Your task to perform on an android device: When is my next meeting? Image 0: 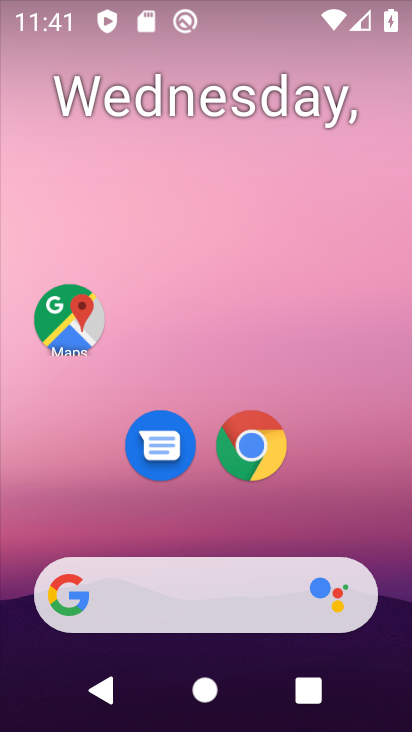
Step 0: drag from (335, 473) to (337, 74)
Your task to perform on an android device: When is my next meeting? Image 1: 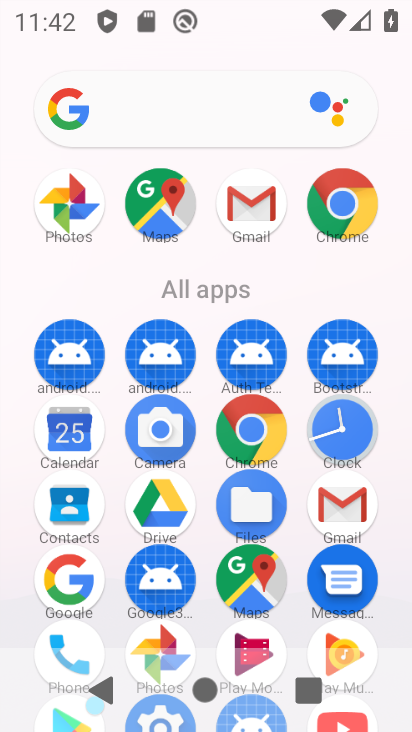
Step 1: click (60, 434)
Your task to perform on an android device: When is my next meeting? Image 2: 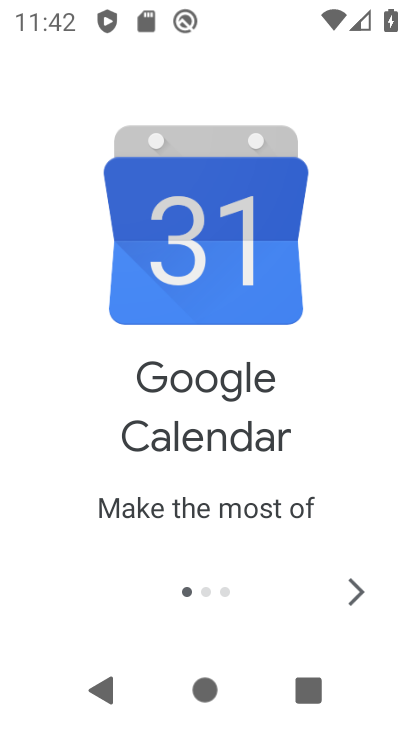
Step 2: click (330, 617)
Your task to perform on an android device: When is my next meeting? Image 3: 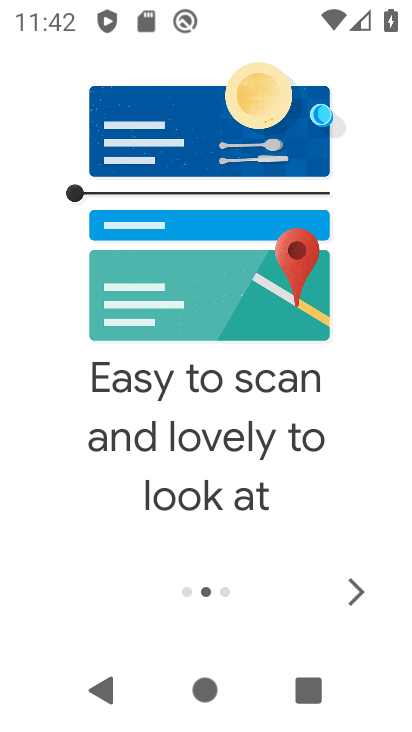
Step 3: click (347, 604)
Your task to perform on an android device: When is my next meeting? Image 4: 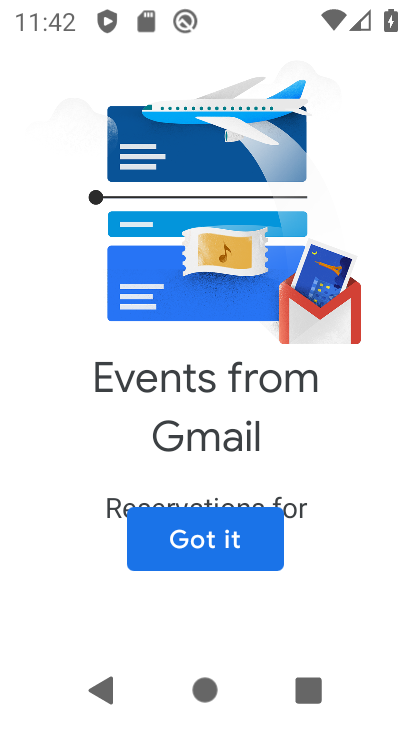
Step 4: click (249, 526)
Your task to perform on an android device: When is my next meeting? Image 5: 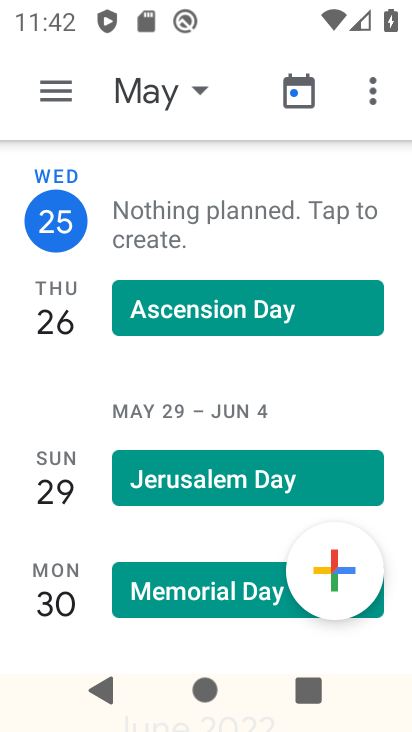
Step 5: task complete